Your task to perform on an android device: What's the weather? Image 0: 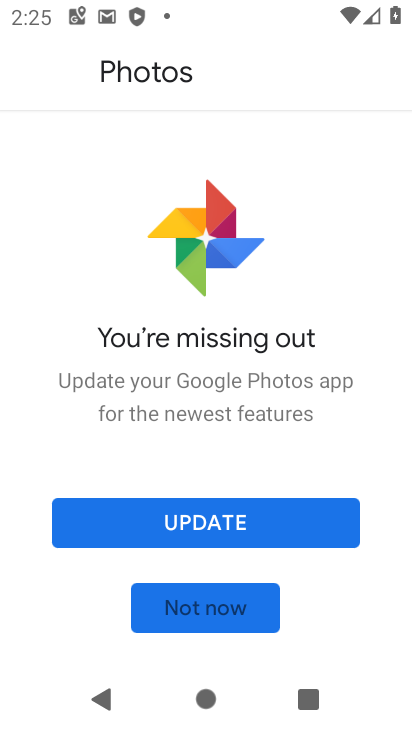
Step 0: press home button
Your task to perform on an android device: What's the weather? Image 1: 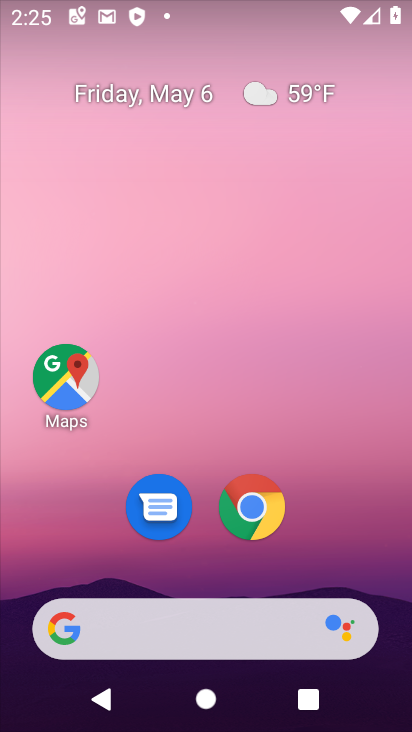
Step 1: click (271, 503)
Your task to perform on an android device: What's the weather? Image 2: 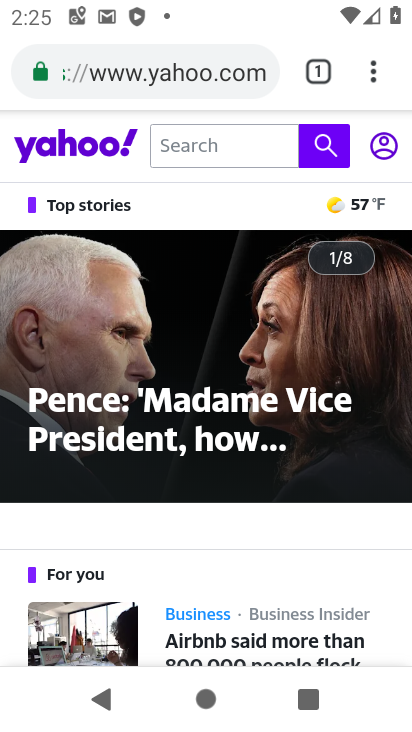
Step 2: click (196, 75)
Your task to perform on an android device: What's the weather? Image 3: 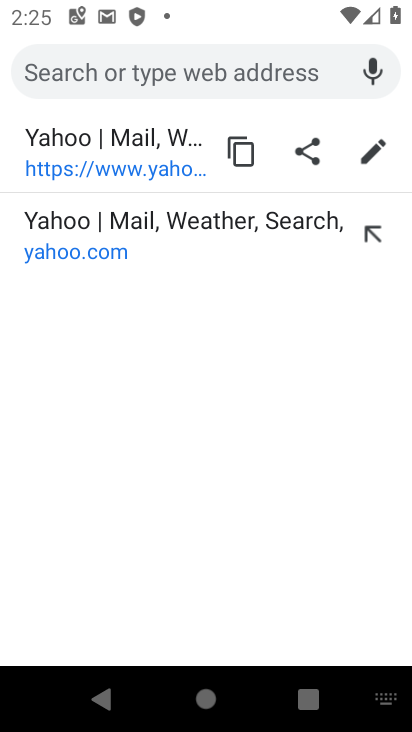
Step 3: type "whats the weather ?"
Your task to perform on an android device: What's the weather? Image 4: 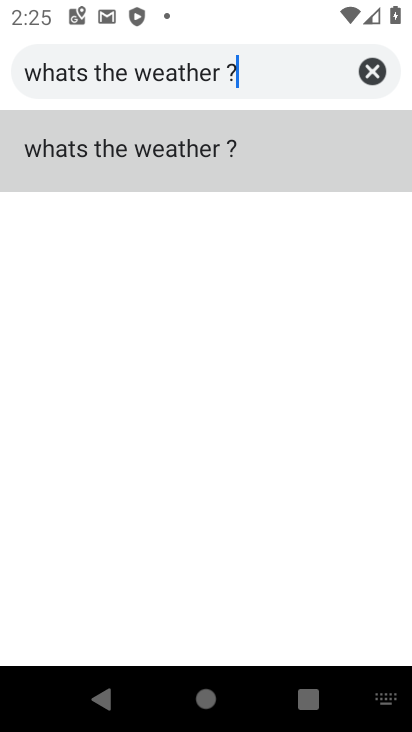
Step 4: click (180, 137)
Your task to perform on an android device: What's the weather? Image 5: 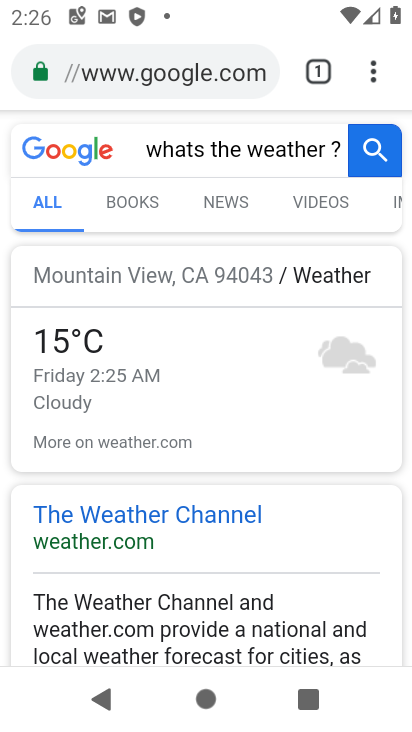
Step 5: task complete